Your task to perform on an android device: Do I have any events today? Image 0: 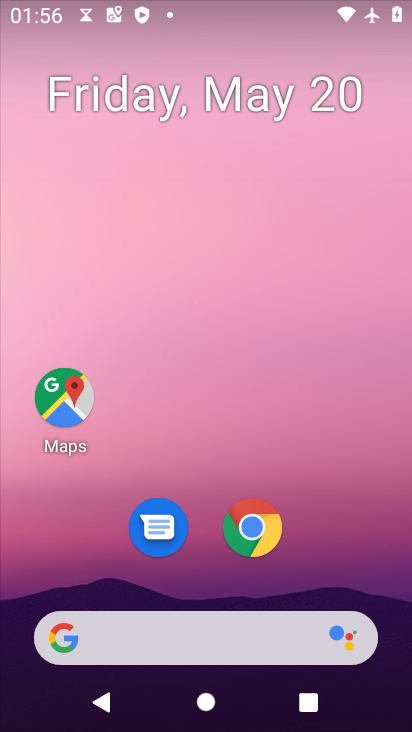
Step 0: press home button
Your task to perform on an android device: Do I have any events today? Image 1: 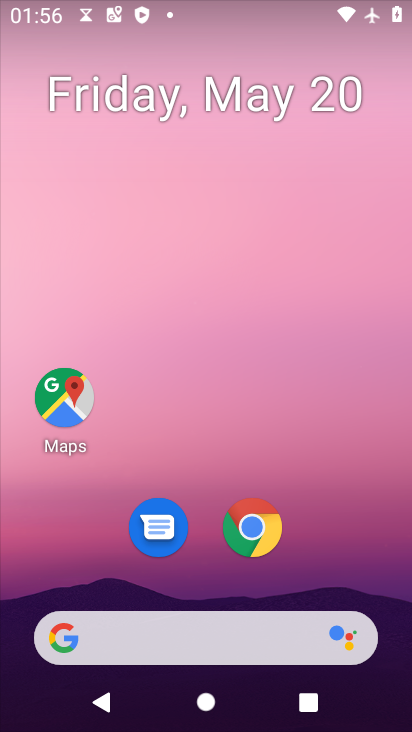
Step 1: drag from (156, 637) to (263, 190)
Your task to perform on an android device: Do I have any events today? Image 2: 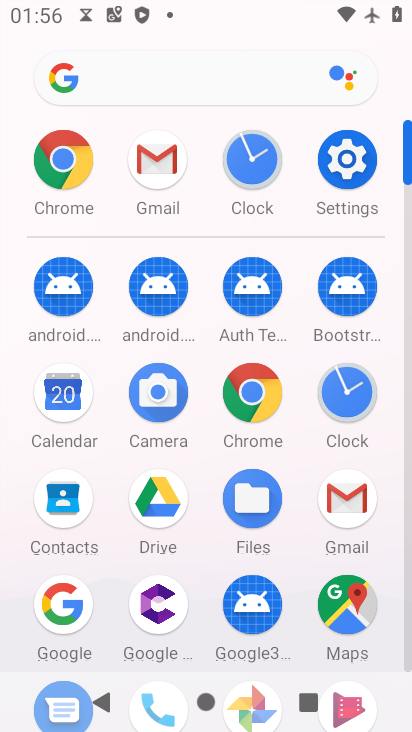
Step 2: click (65, 407)
Your task to perform on an android device: Do I have any events today? Image 3: 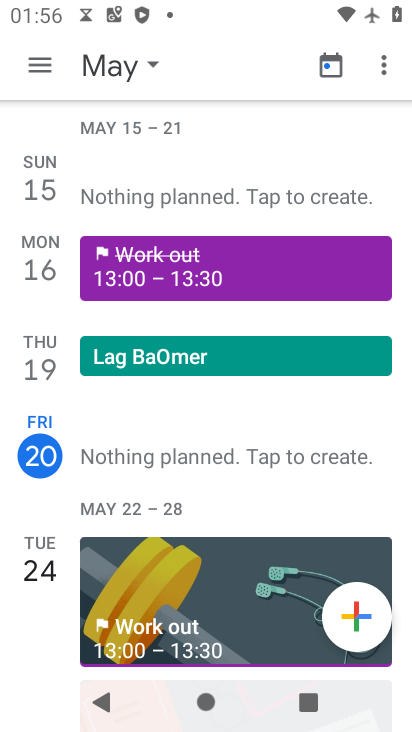
Step 3: click (107, 66)
Your task to perform on an android device: Do I have any events today? Image 4: 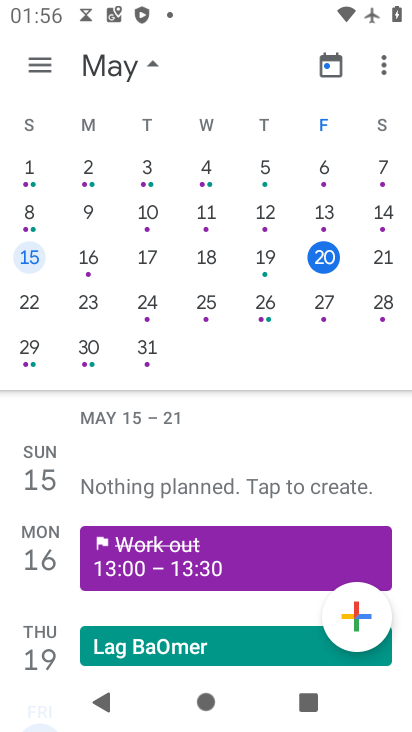
Step 4: click (335, 257)
Your task to perform on an android device: Do I have any events today? Image 5: 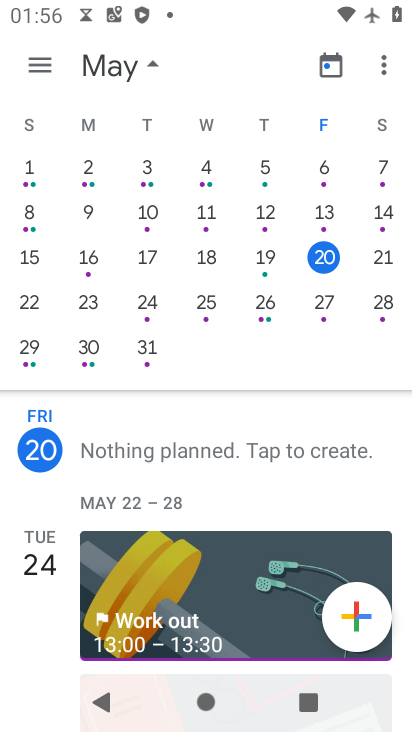
Step 5: click (37, 68)
Your task to perform on an android device: Do I have any events today? Image 6: 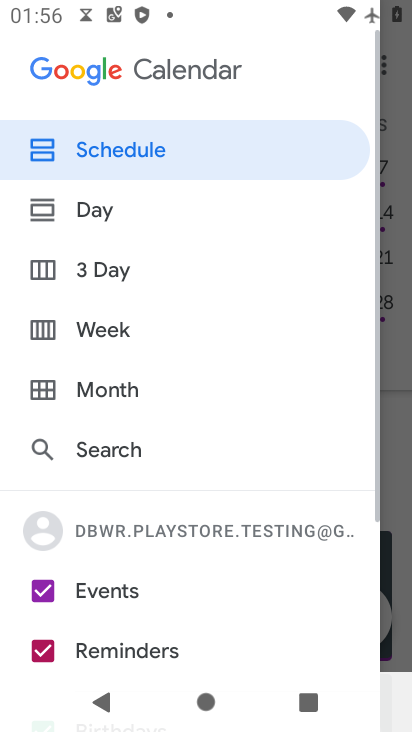
Step 6: click (88, 210)
Your task to perform on an android device: Do I have any events today? Image 7: 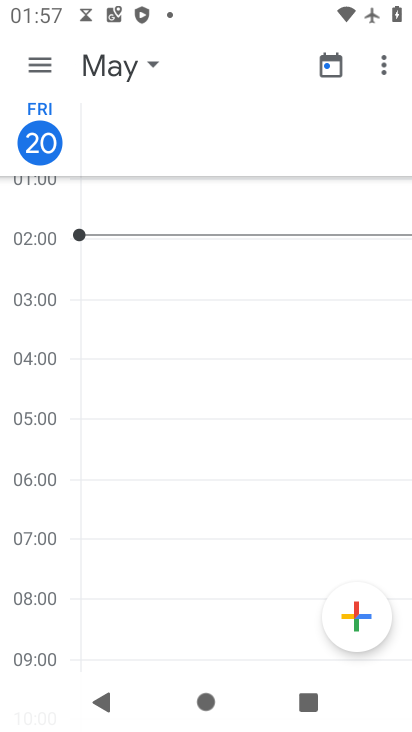
Step 7: click (37, 68)
Your task to perform on an android device: Do I have any events today? Image 8: 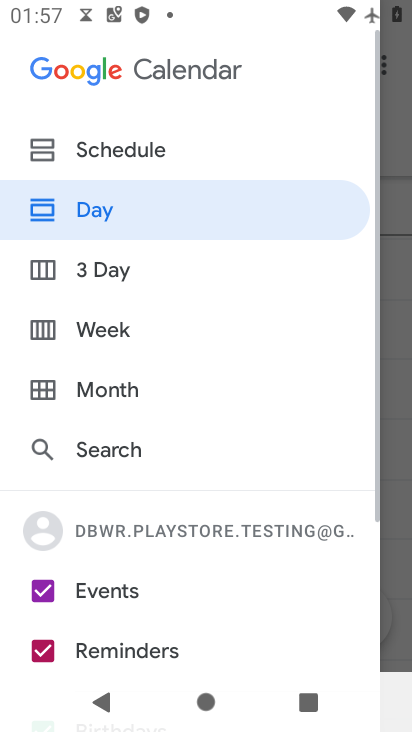
Step 8: click (108, 148)
Your task to perform on an android device: Do I have any events today? Image 9: 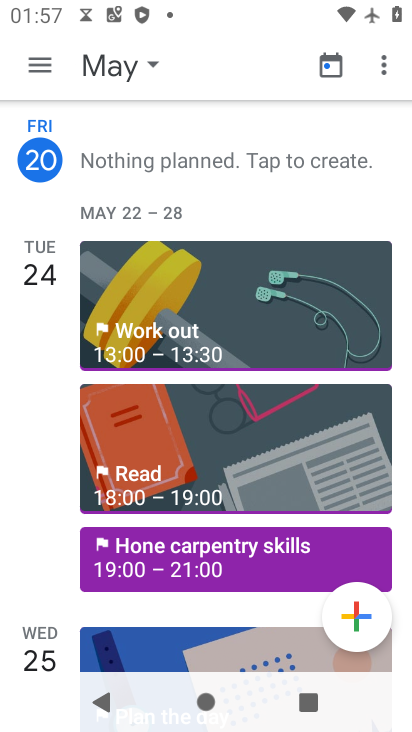
Step 9: task complete